Your task to perform on an android device: turn off picture-in-picture Image 0: 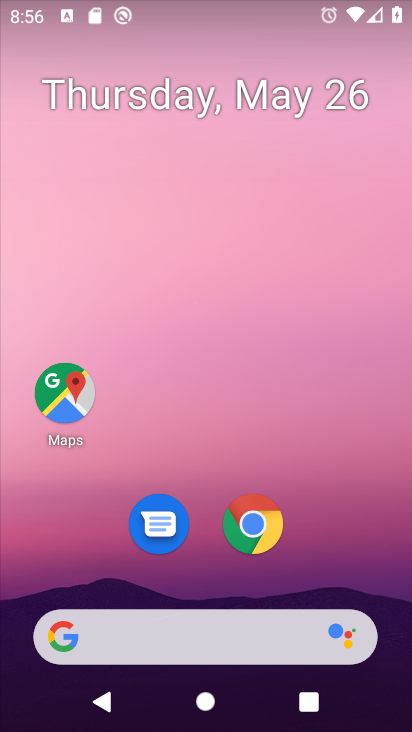
Step 0: click (253, 527)
Your task to perform on an android device: turn off picture-in-picture Image 1: 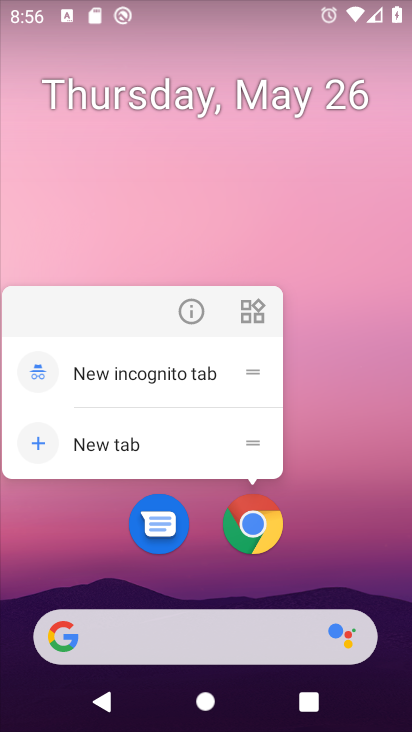
Step 1: click (193, 304)
Your task to perform on an android device: turn off picture-in-picture Image 2: 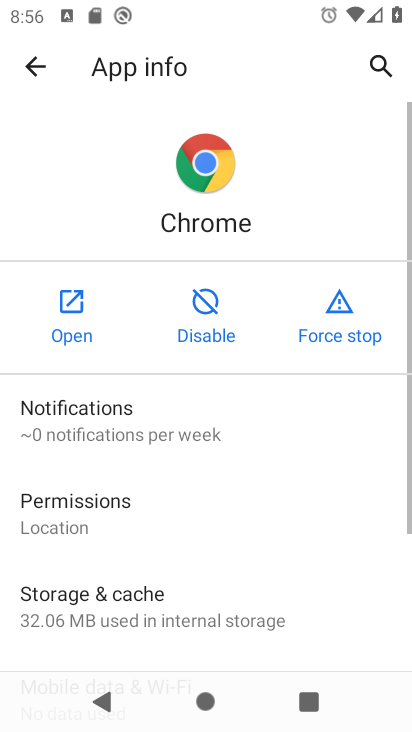
Step 2: drag from (238, 540) to (227, 133)
Your task to perform on an android device: turn off picture-in-picture Image 3: 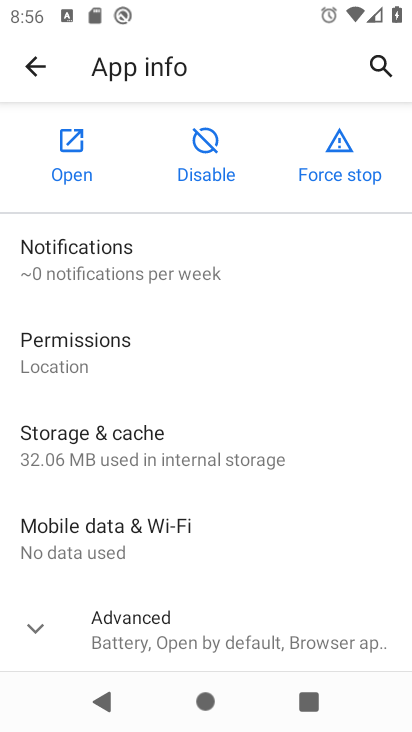
Step 3: click (37, 619)
Your task to perform on an android device: turn off picture-in-picture Image 4: 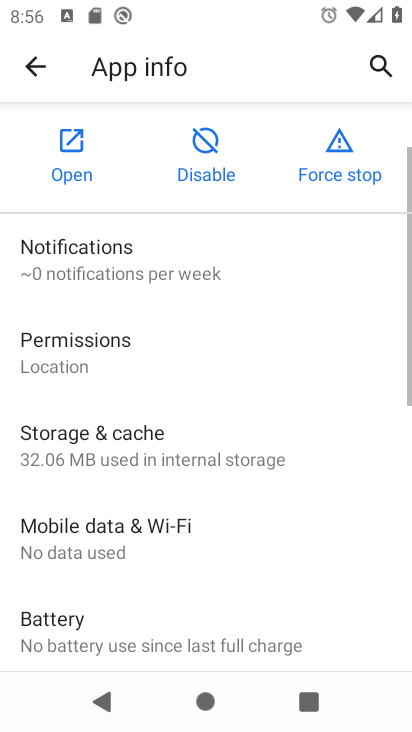
Step 4: drag from (170, 582) to (253, 186)
Your task to perform on an android device: turn off picture-in-picture Image 5: 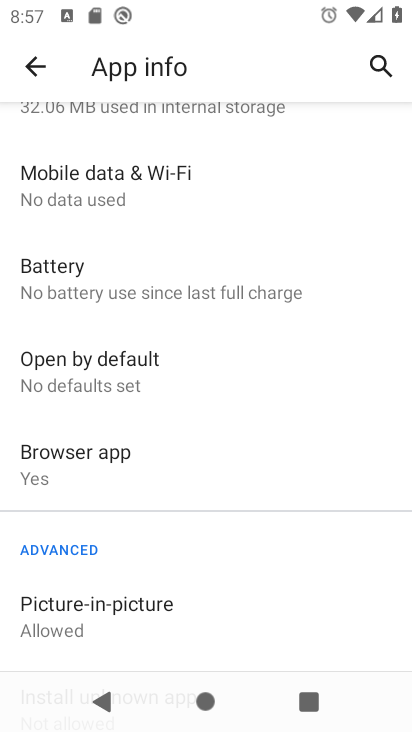
Step 5: click (143, 626)
Your task to perform on an android device: turn off picture-in-picture Image 6: 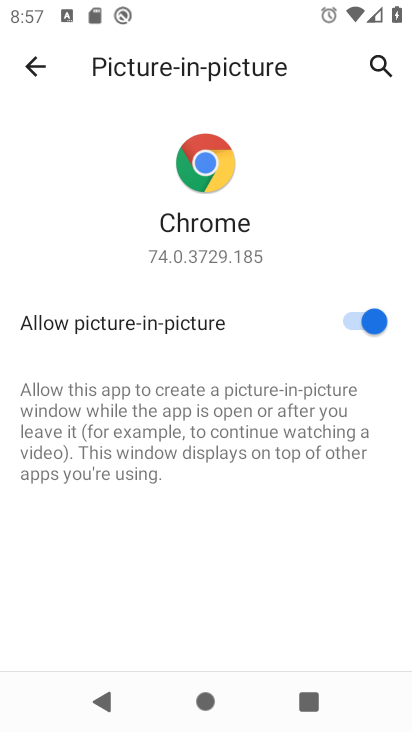
Step 6: click (359, 317)
Your task to perform on an android device: turn off picture-in-picture Image 7: 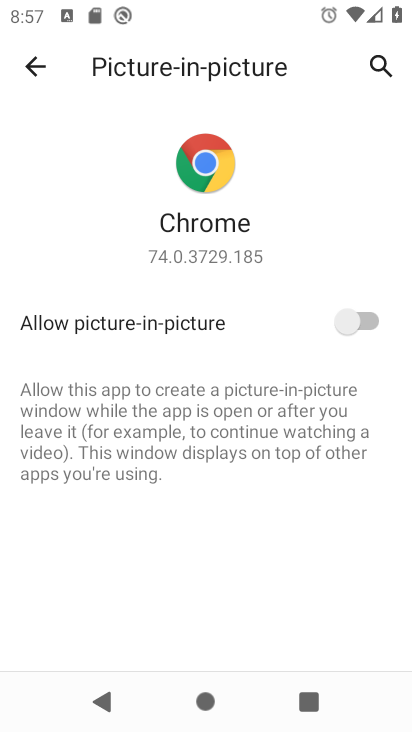
Step 7: task complete